Your task to perform on an android device: refresh tabs in the chrome app Image 0: 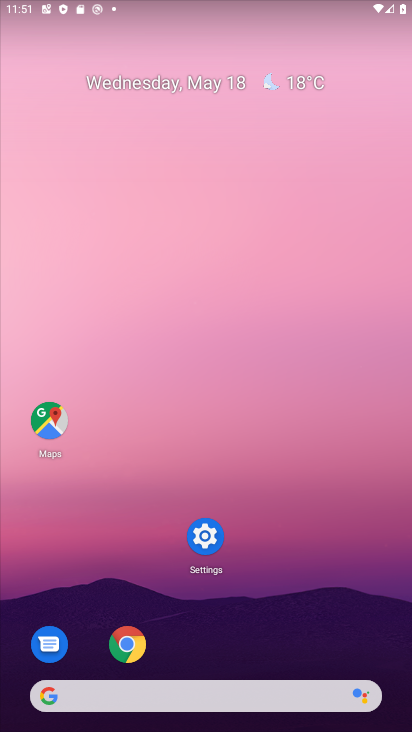
Step 0: click (135, 649)
Your task to perform on an android device: refresh tabs in the chrome app Image 1: 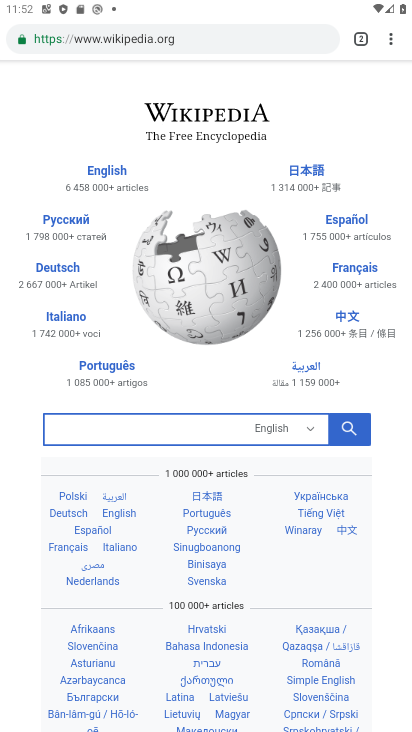
Step 1: click (385, 32)
Your task to perform on an android device: refresh tabs in the chrome app Image 2: 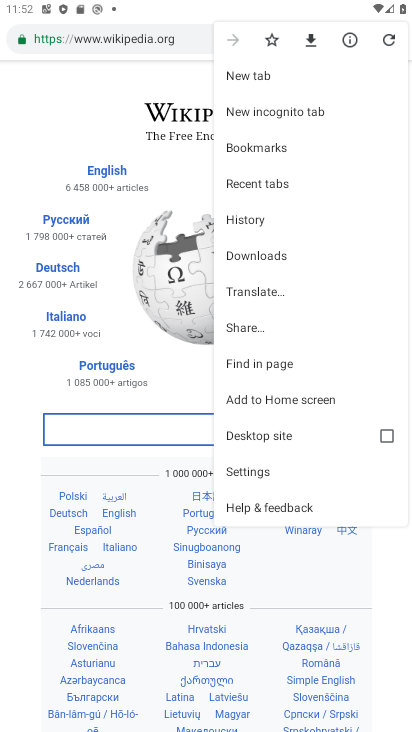
Step 2: click (385, 32)
Your task to perform on an android device: refresh tabs in the chrome app Image 3: 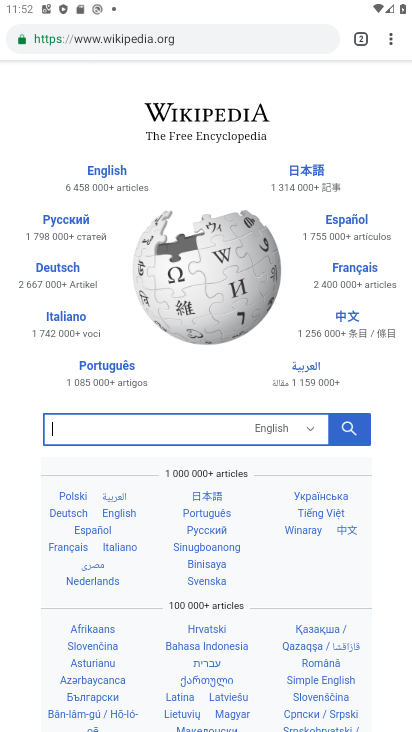
Step 3: task complete